Your task to perform on an android device: snooze an email in the gmail app Image 0: 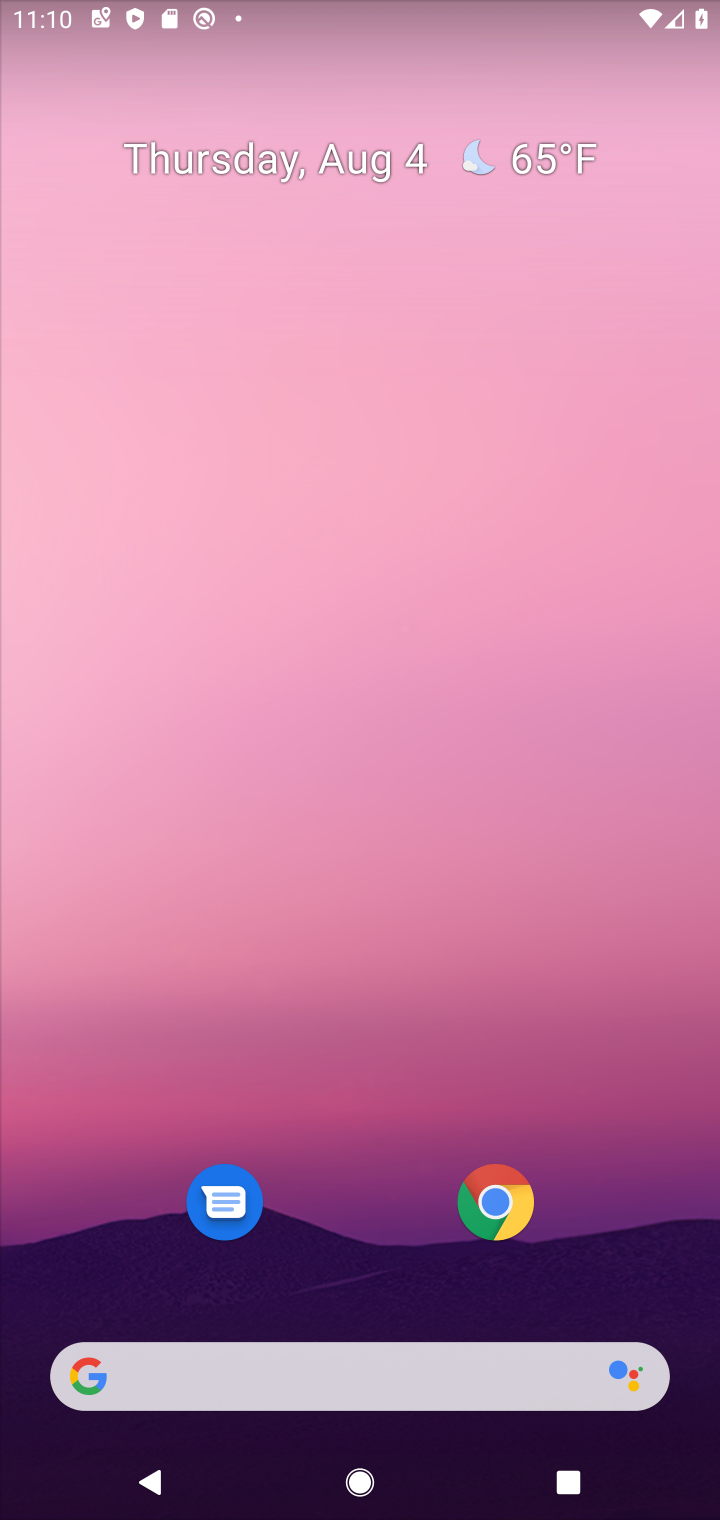
Step 0: drag from (359, 1263) to (347, 13)
Your task to perform on an android device: snooze an email in the gmail app Image 1: 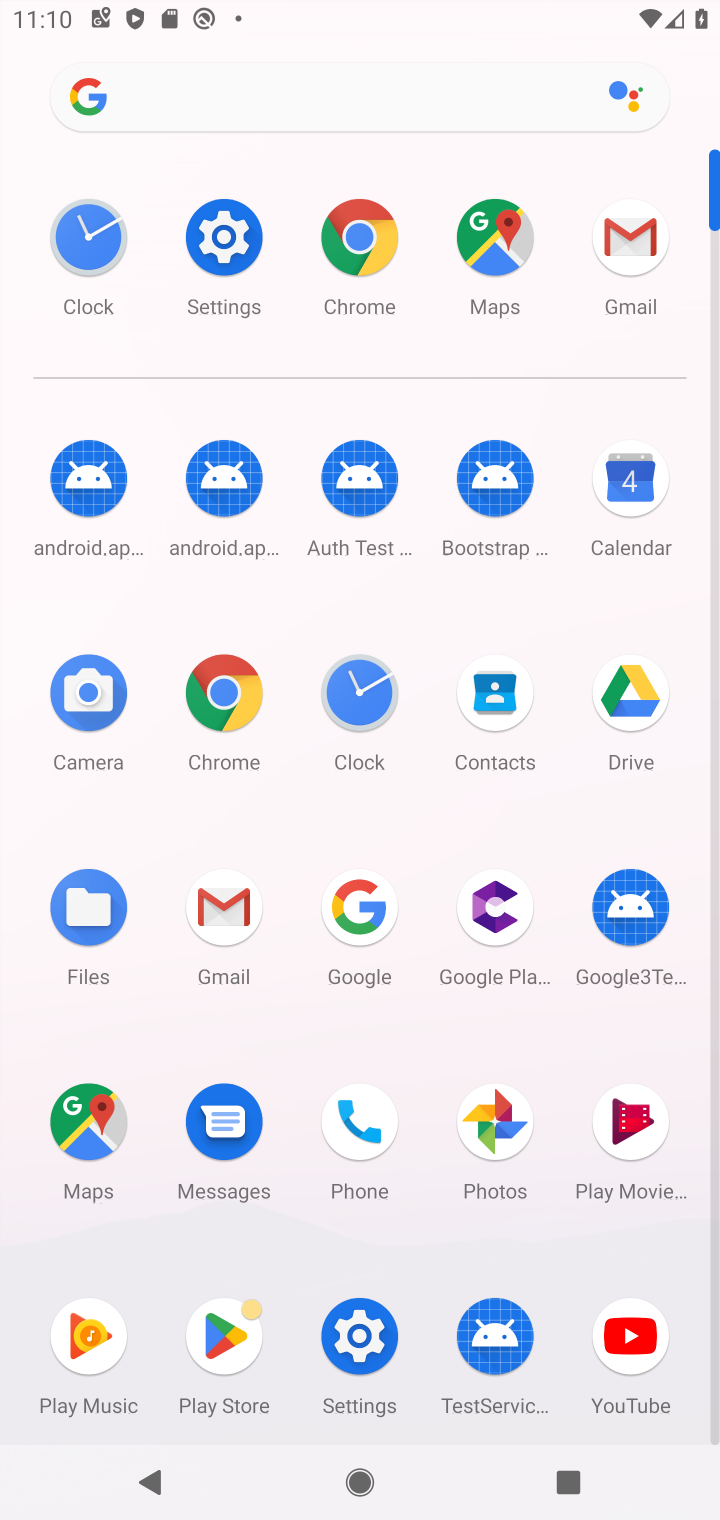
Step 1: click (660, 229)
Your task to perform on an android device: snooze an email in the gmail app Image 2: 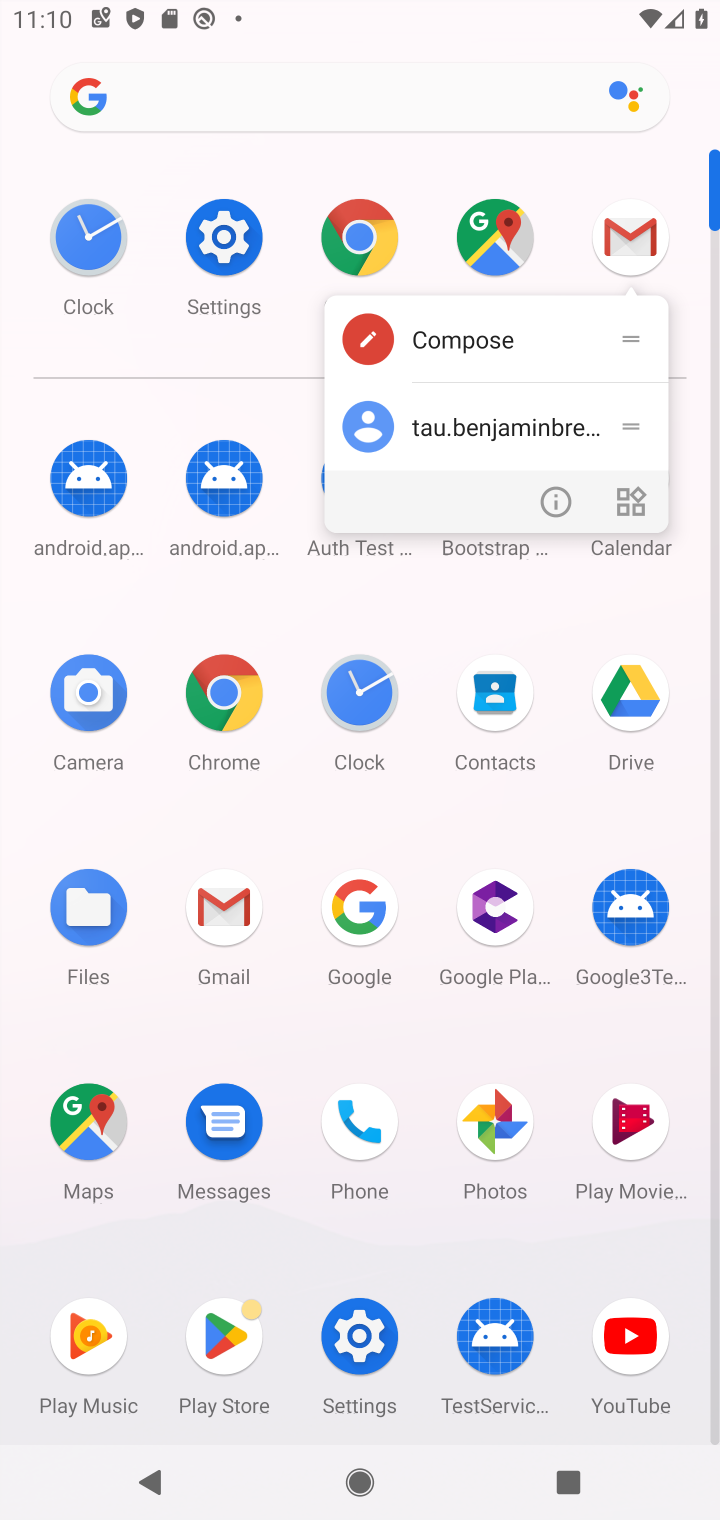
Step 2: click (594, 236)
Your task to perform on an android device: snooze an email in the gmail app Image 3: 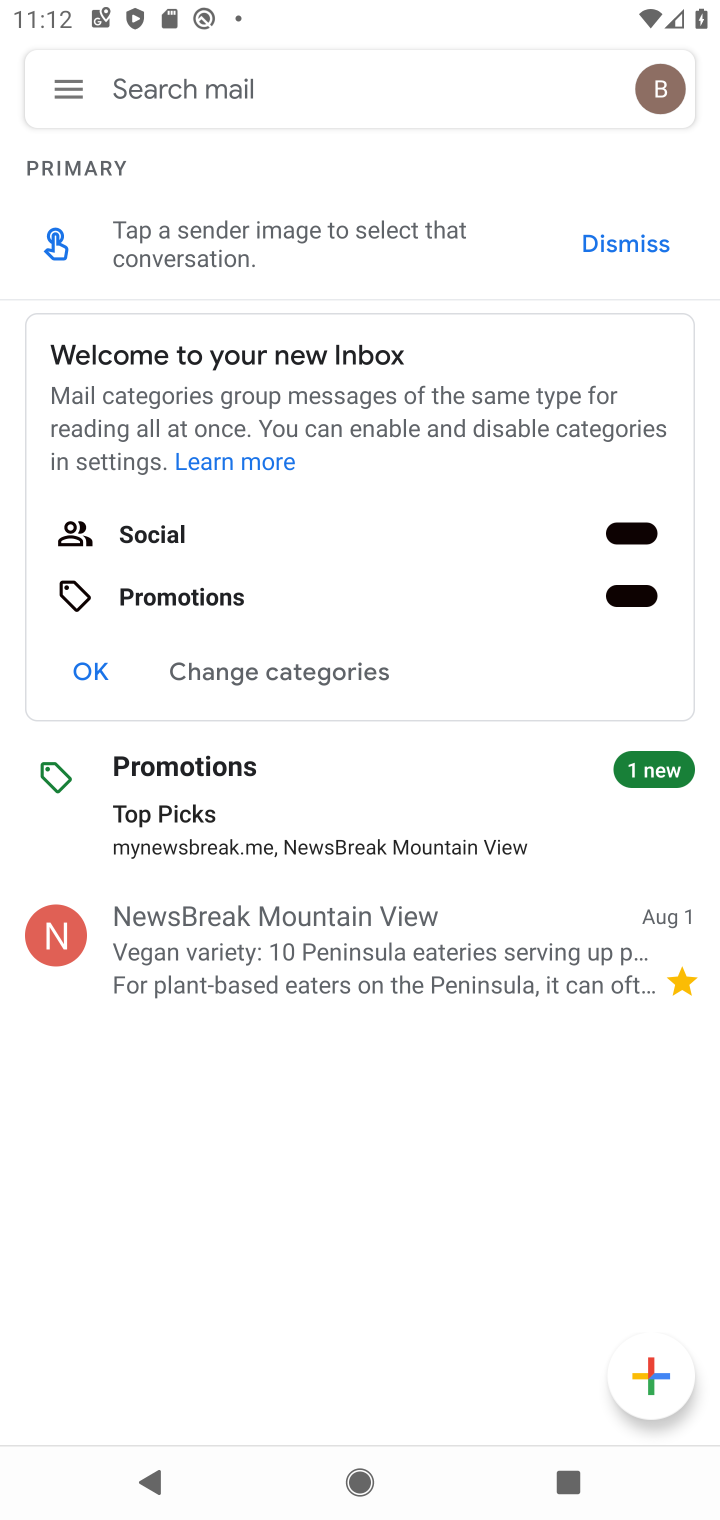
Step 3: click (60, 88)
Your task to perform on an android device: snooze an email in the gmail app Image 4: 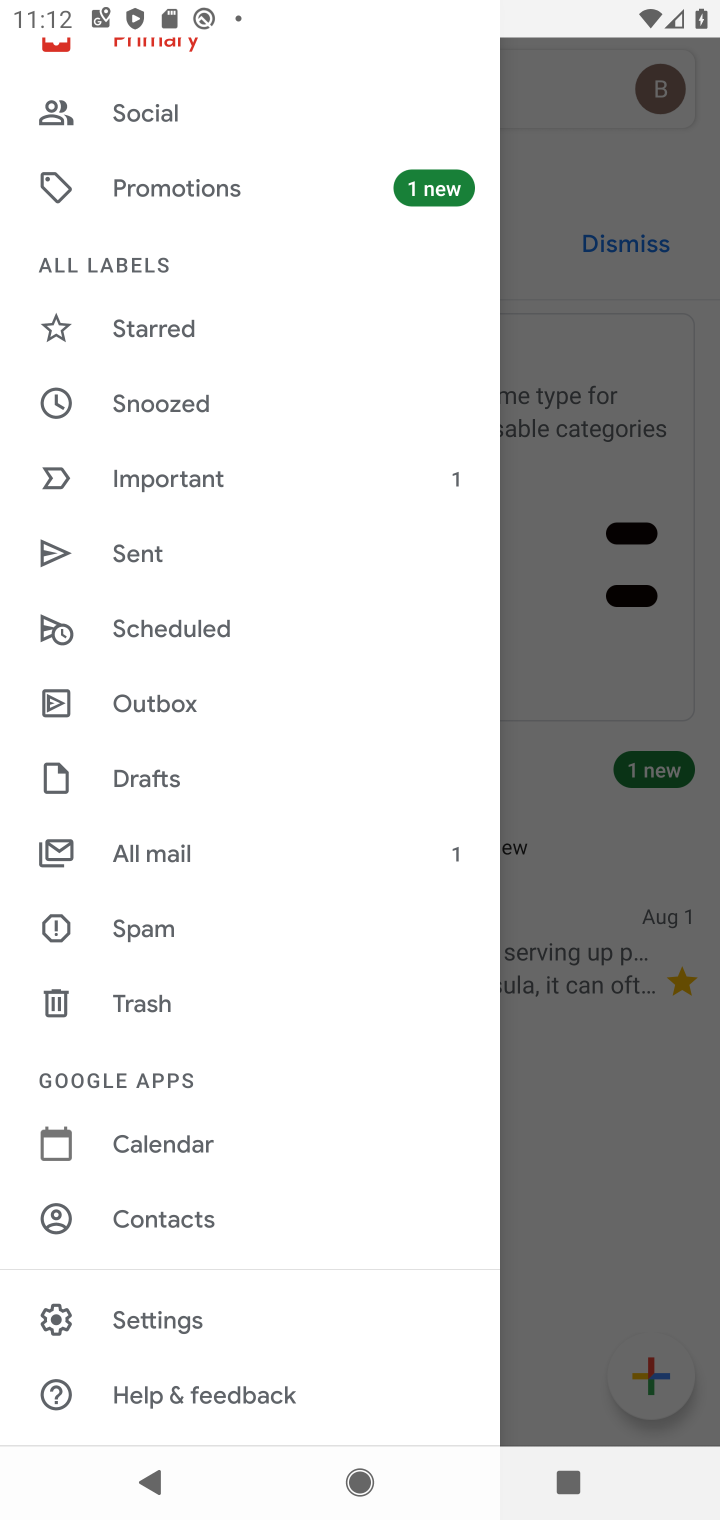
Step 4: click (182, 848)
Your task to perform on an android device: snooze an email in the gmail app Image 5: 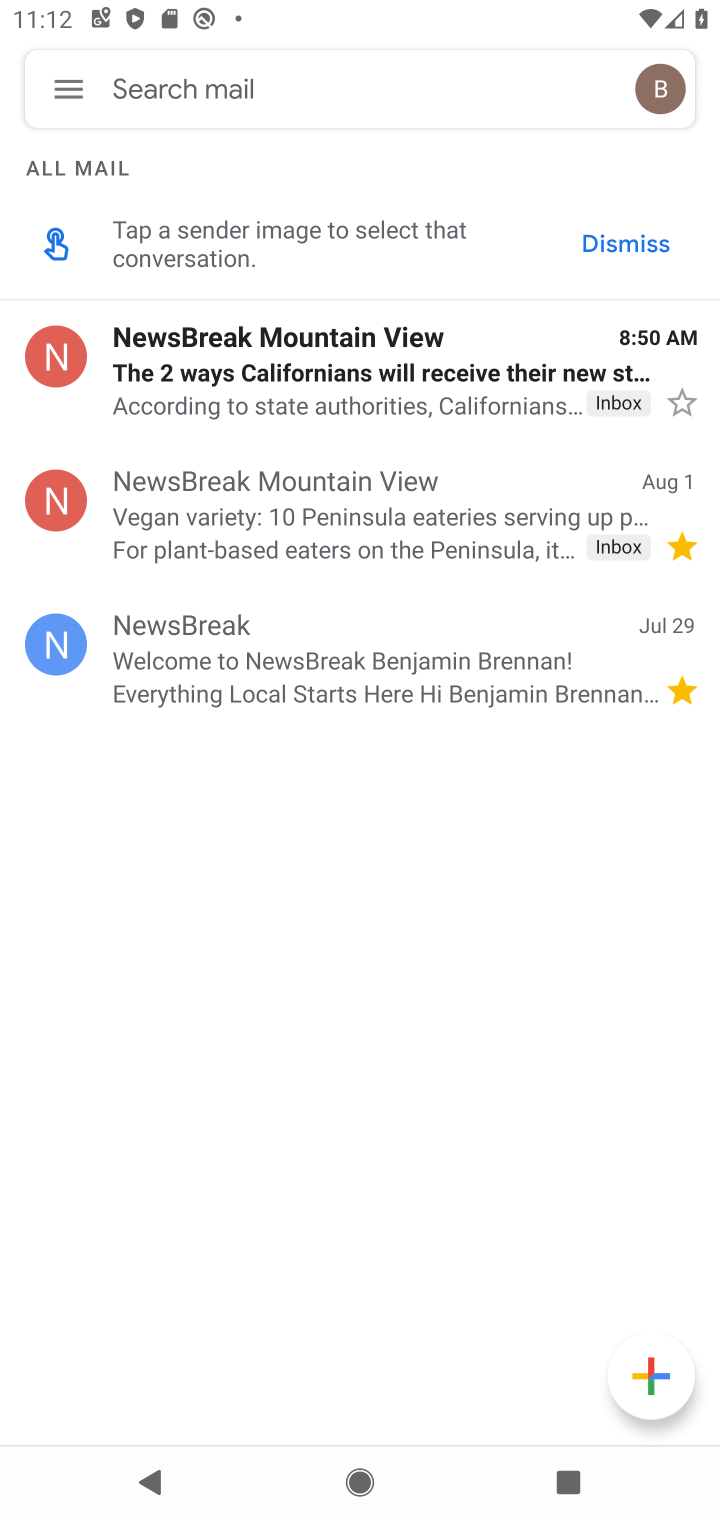
Step 5: click (282, 480)
Your task to perform on an android device: snooze an email in the gmail app Image 6: 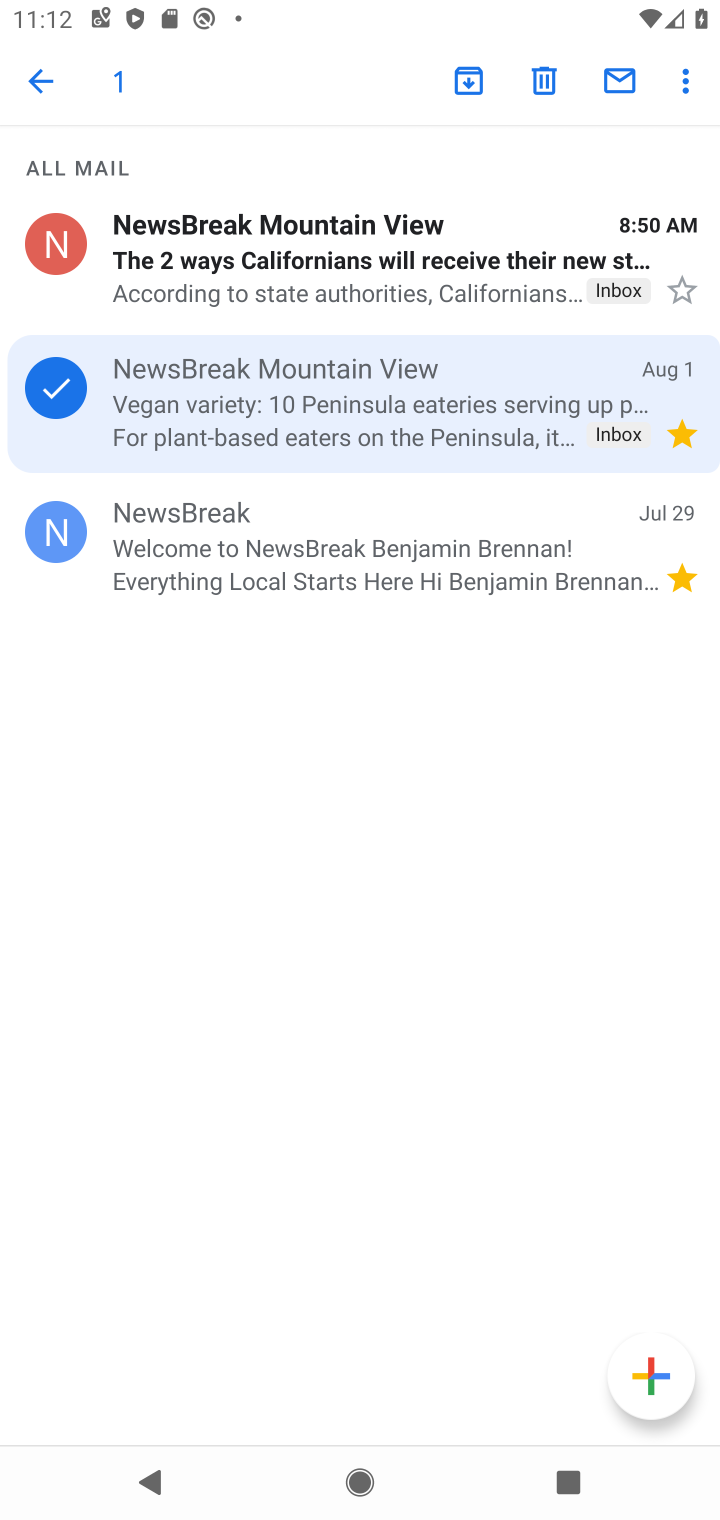
Step 6: click (295, 244)
Your task to perform on an android device: snooze an email in the gmail app Image 7: 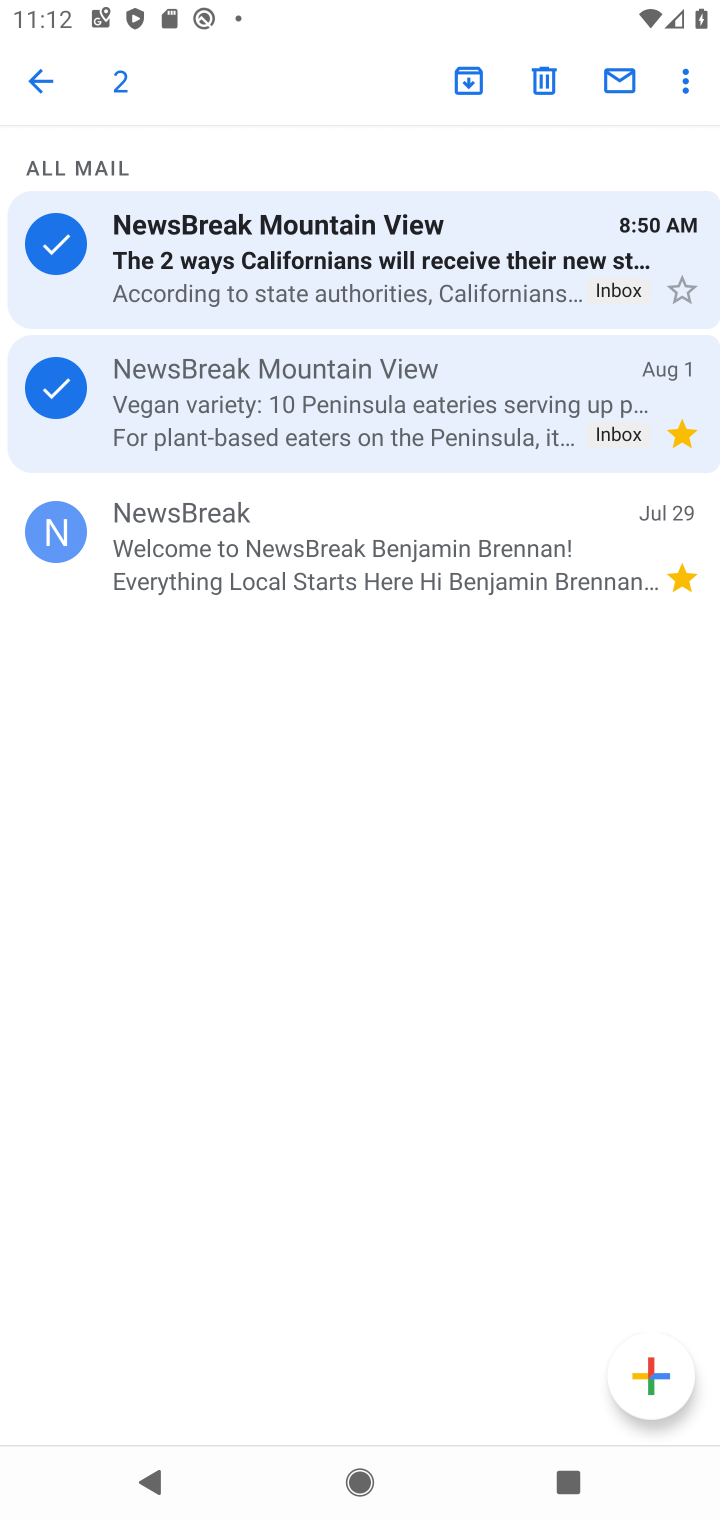
Step 7: click (669, 101)
Your task to perform on an android device: snooze an email in the gmail app Image 8: 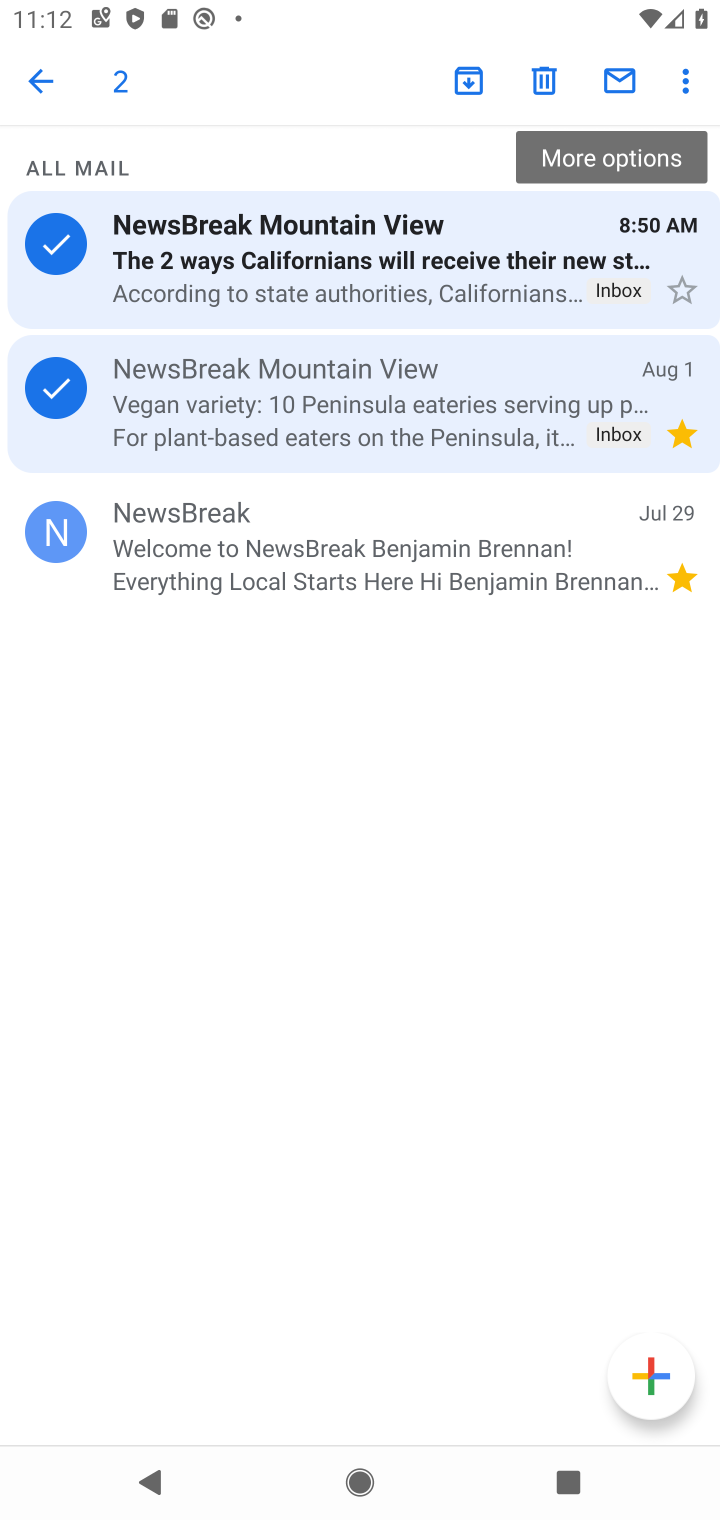
Step 8: click (694, 68)
Your task to perform on an android device: snooze an email in the gmail app Image 9: 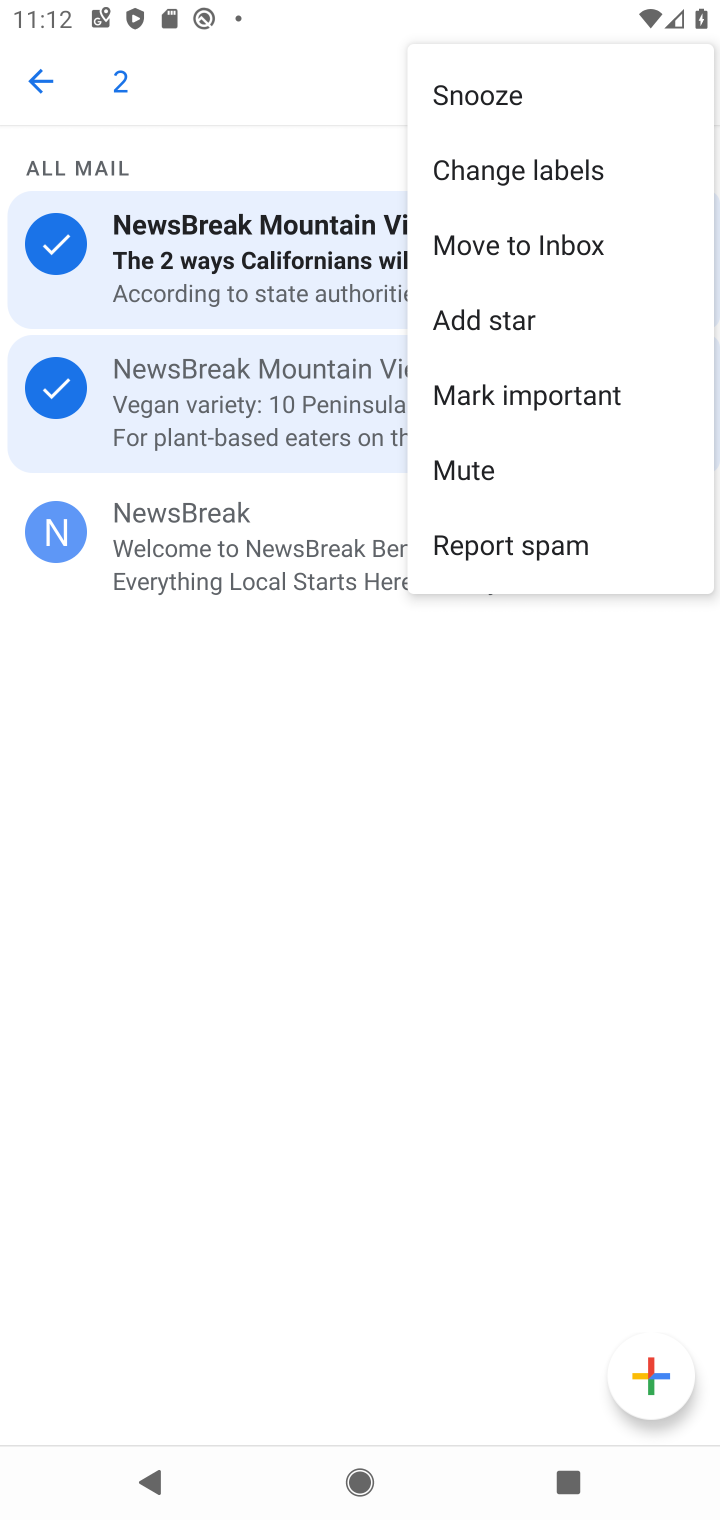
Step 9: click (506, 98)
Your task to perform on an android device: snooze an email in the gmail app Image 10: 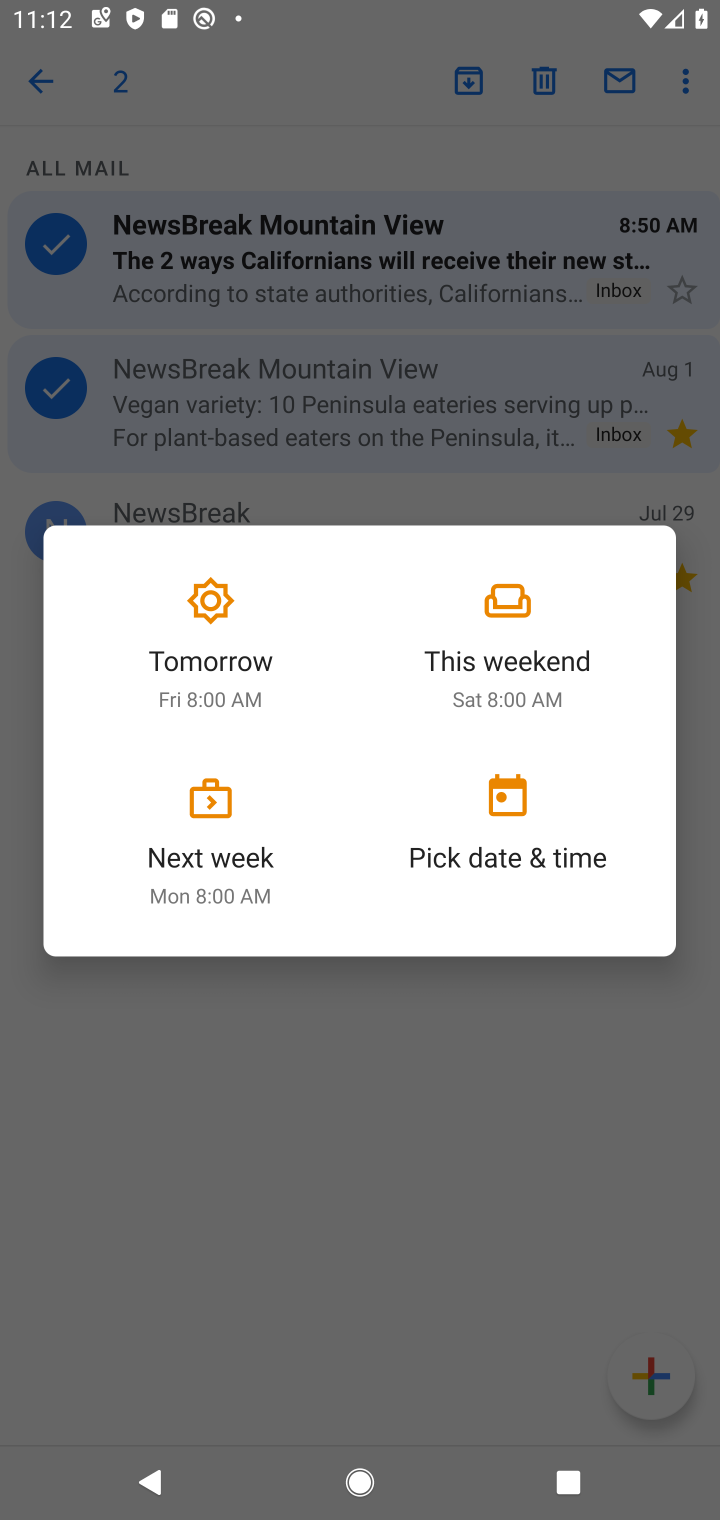
Step 10: click (161, 623)
Your task to perform on an android device: snooze an email in the gmail app Image 11: 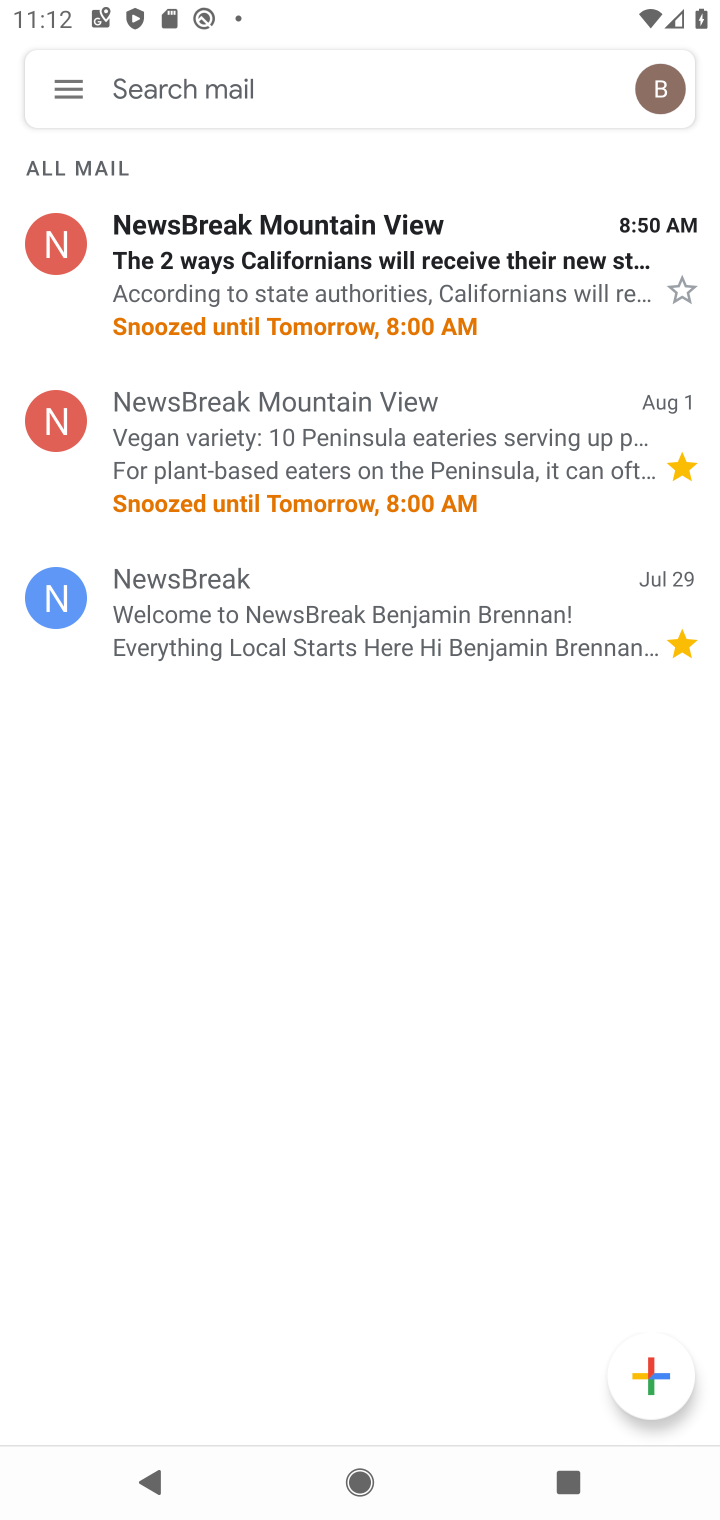
Step 11: task complete